Your task to perform on an android device: Open Google Chrome and click the shortcut for Amazon.com Image 0: 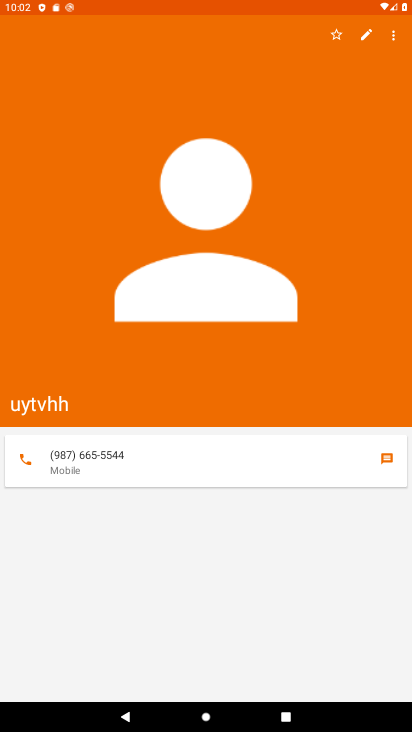
Step 0: press home button
Your task to perform on an android device: Open Google Chrome and click the shortcut for Amazon.com Image 1: 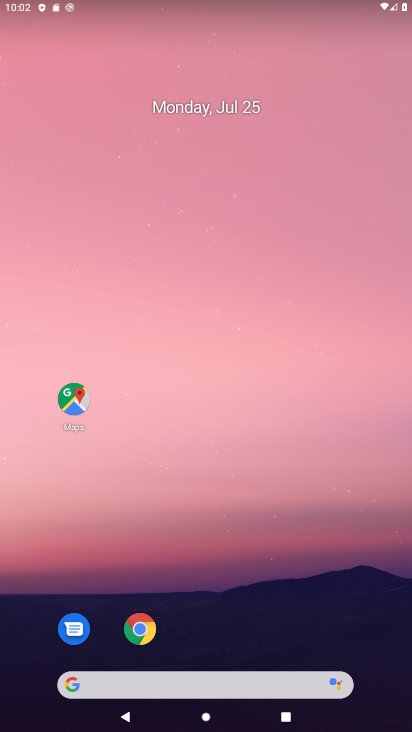
Step 1: click (136, 631)
Your task to perform on an android device: Open Google Chrome and click the shortcut for Amazon.com Image 2: 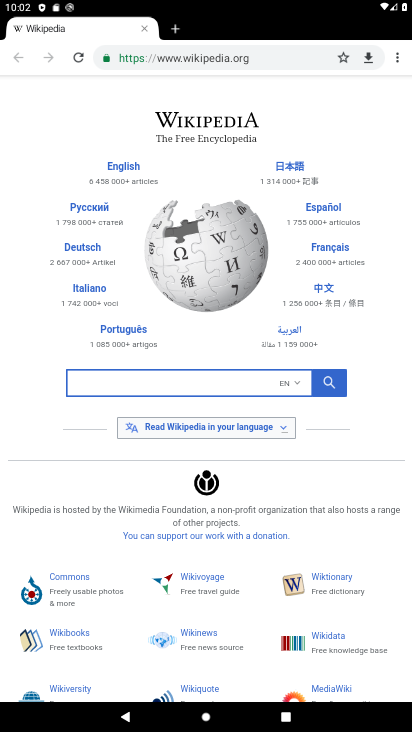
Step 2: click (18, 61)
Your task to perform on an android device: Open Google Chrome and click the shortcut for Amazon.com Image 3: 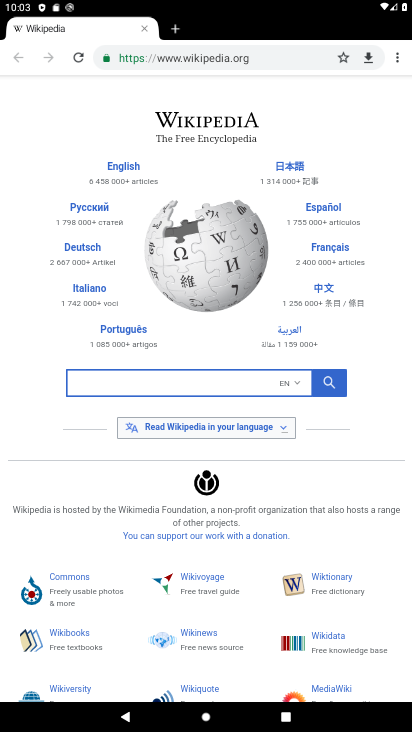
Step 3: click (142, 32)
Your task to perform on an android device: Open Google Chrome and click the shortcut for Amazon.com Image 4: 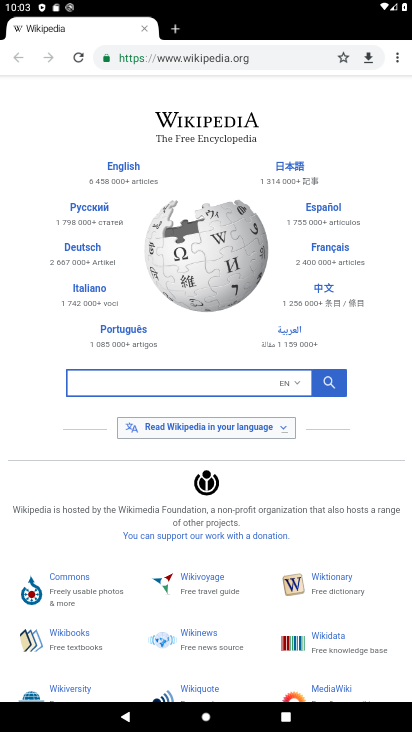
Step 4: click (144, 31)
Your task to perform on an android device: Open Google Chrome and click the shortcut for Amazon.com Image 5: 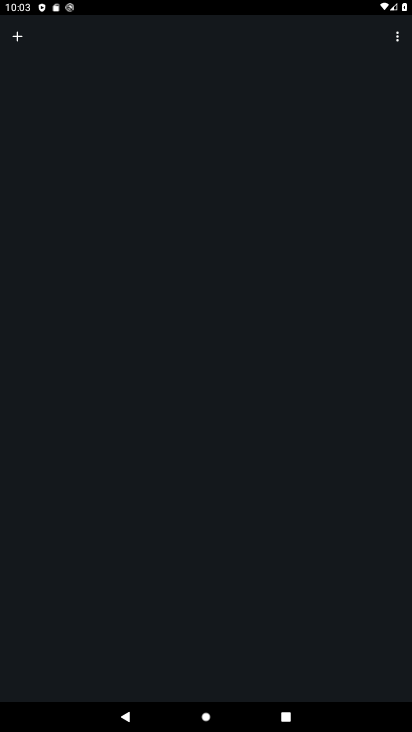
Step 5: click (21, 36)
Your task to perform on an android device: Open Google Chrome and click the shortcut for Amazon.com Image 6: 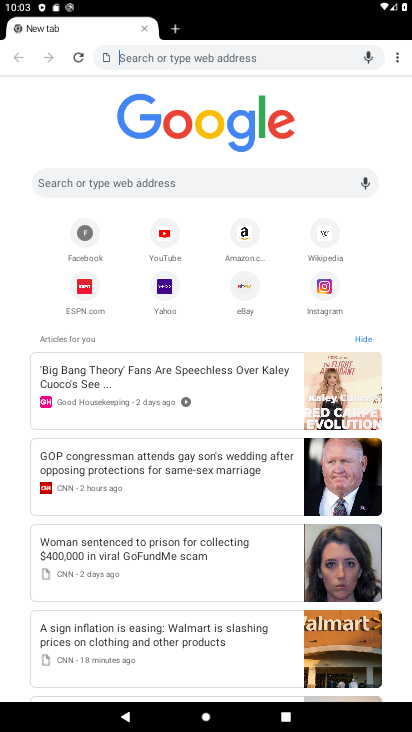
Step 6: click (245, 237)
Your task to perform on an android device: Open Google Chrome and click the shortcut for Amazon.com Image 7: 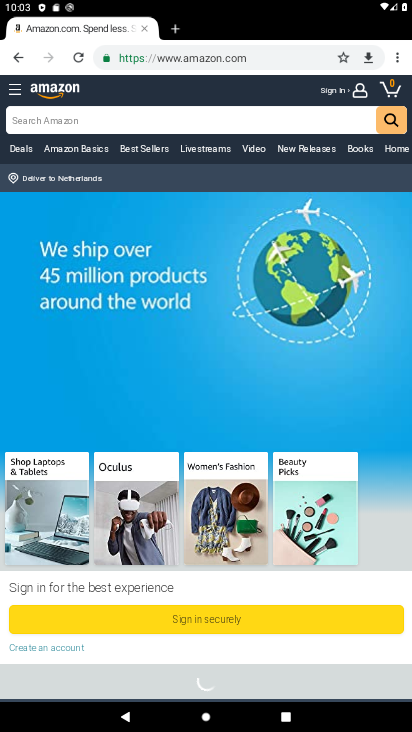
Step 7: task complete